Your task to perform on an android device: What is the news today? Image 0: 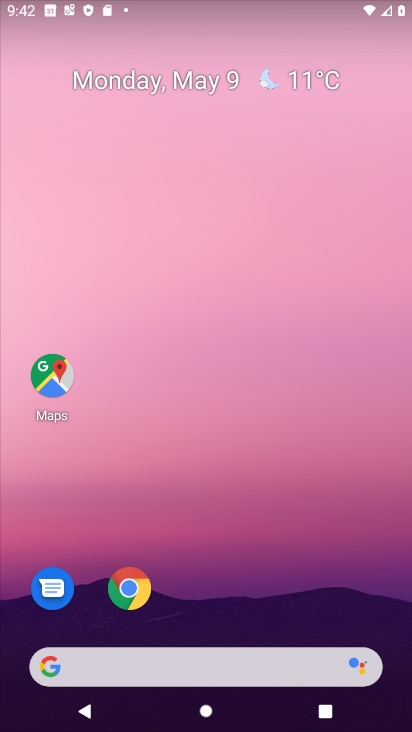
Step 0: press home button
Your task to perform on an android device: What is the news today? Image 1: 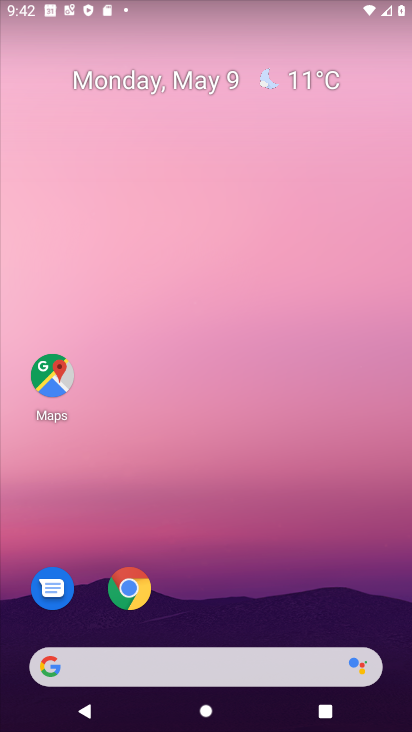
Step 1: click (54, 673)
Your task to perform on an android device: What is the news today? Image 2: 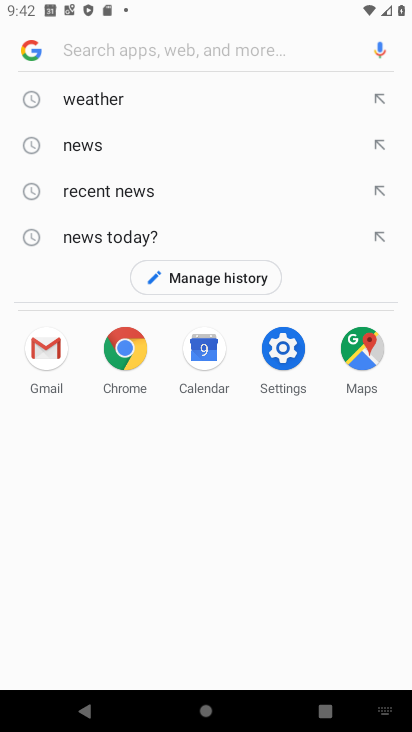
Step 2: click (132, 236)
Your task to perform on an android device: What is the news today? Image 3: 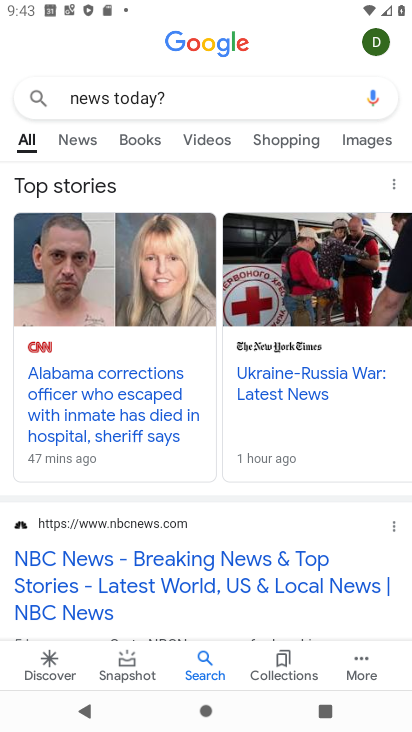
Step 3: click (75, 138)
Your task to perform on an android device: What is the news today? Image 4: 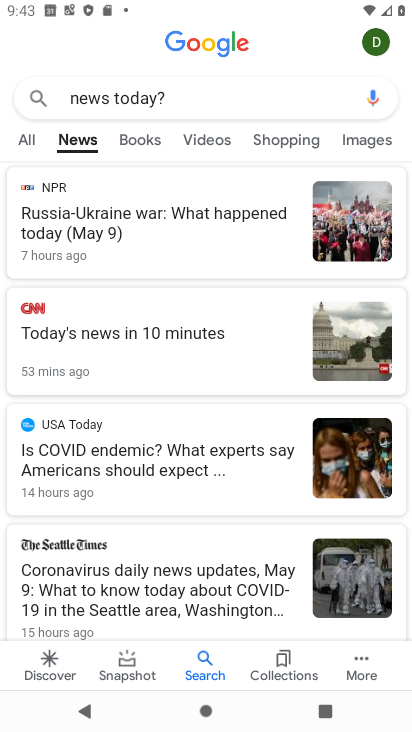
Step 4: task complete